Your task to perform on an android device: Show me the alarms in the clock app Image 0: 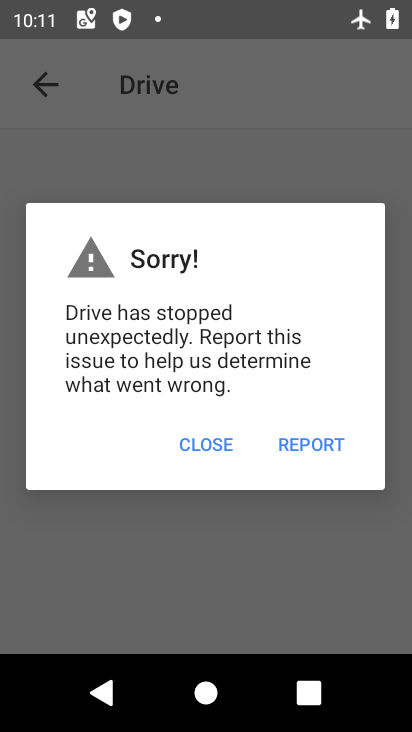
Step 0: press home button
Your task to perform on an android device: Show me the alarms in the clock app Image 1: 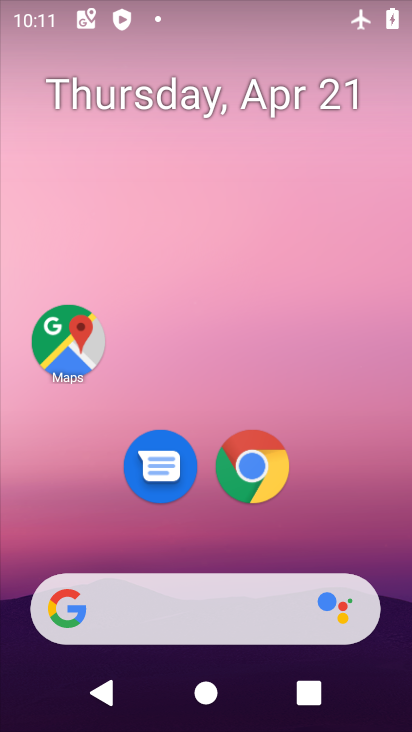
Step 1: drag from (326, 495) to (316, 5)
Your task to perform on an android device: Show me the alarms in the clock app Image 2: 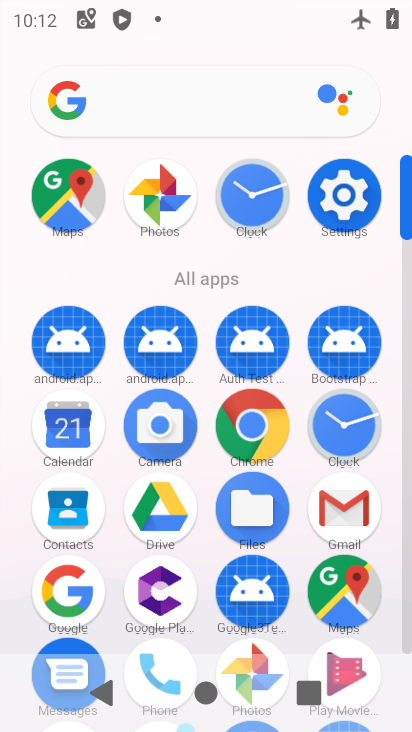
Step 2: click (345, 436)
Your task to perform on an android device: Show me the alarms in the clock app Image 3: 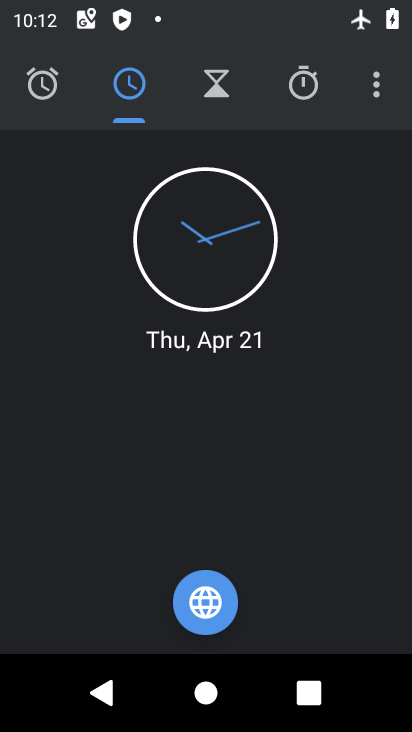
Step 3: click (46, 81)
Your task to perform on an android device: Show me the alarms in the clock app Image 4: 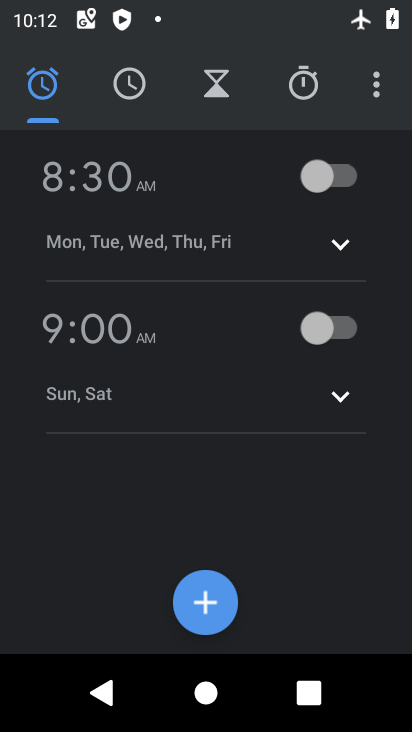
Step 4: task complete